Your task to perform on an android device: check the backup settings in the google photos Image 0: 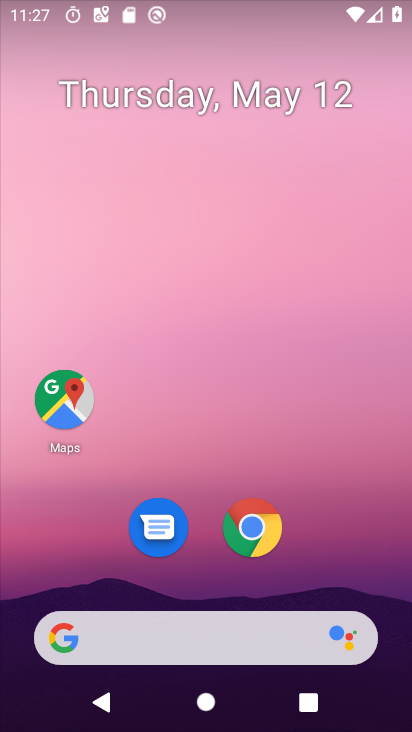
Step 0: drag from (311, 572) to (260, 136)
Your task to perform on an android device: check the backup settings in the google photos Image 1: 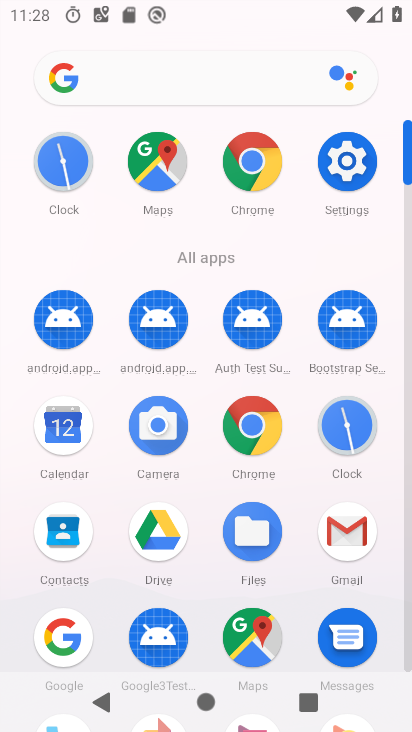
Step 1: drag from (227, 593) to (224, 313)
Your task to perform on an android device: check the backup settings in the google photos Image 2: 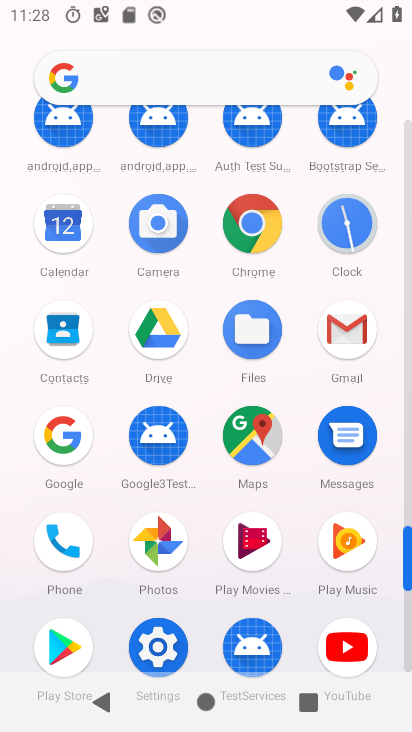
Step 2: click (154, 543)
Your task to perform on an android device: check the backup settings in the google photos Image 3: 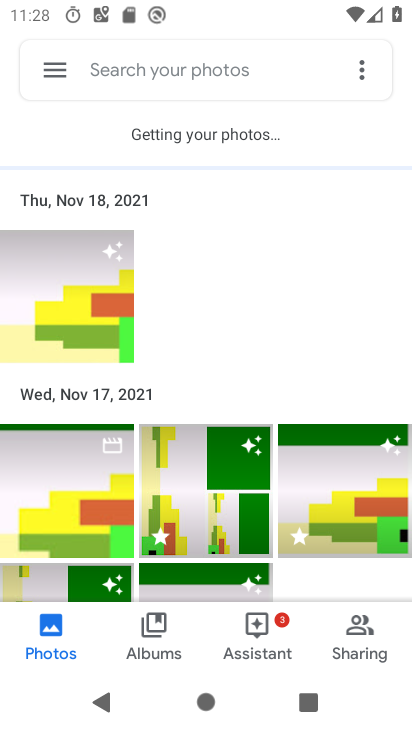
Step 3: click (63, 76)
Your task to perform on an android device: check the backup settings in the google photos Image 4: 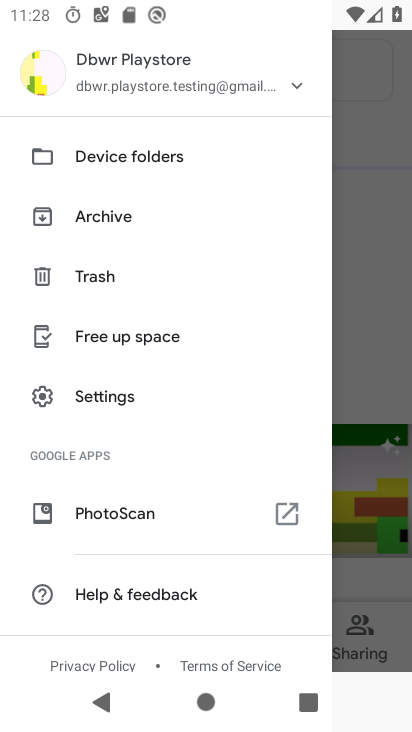
Step 4: click (126, 404)
Your task to perform on an android device: check the backup settings in the google photos Image 5: 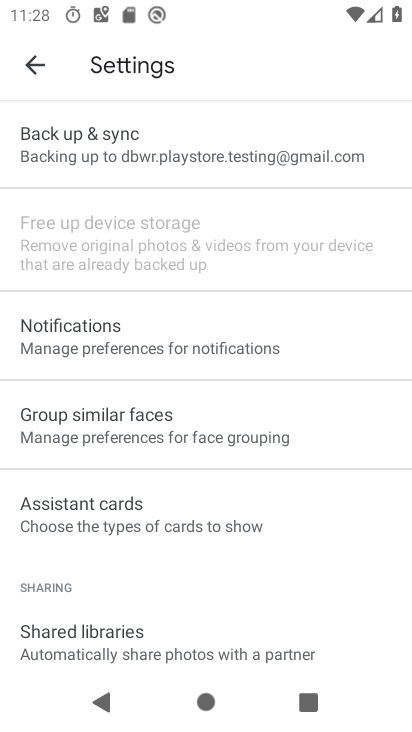
Step 5: click (122, 153)
Your task to perform on an android device: check the backup settings in the google photos Image 6: 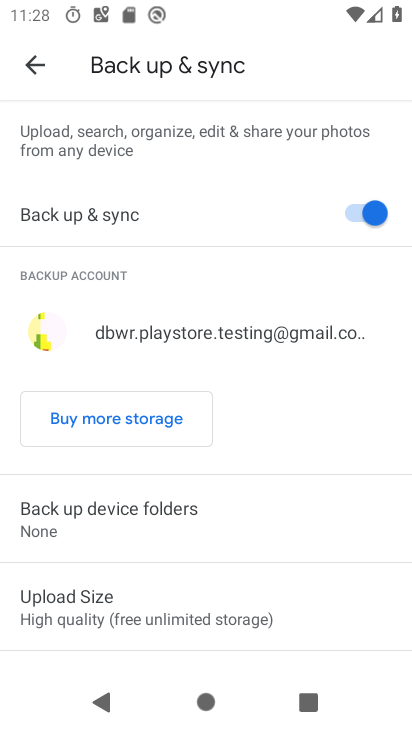
Step 6: task complete